Your task to perform on an android device: toggle javascript in the chrome app Image 0: 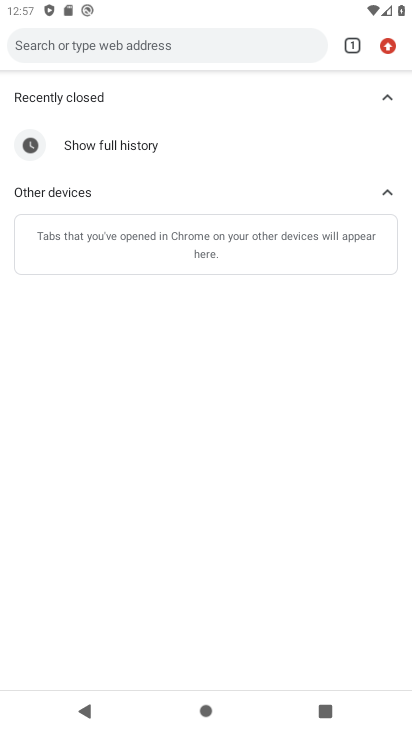
Step 0: press home button
Your task to perform on an android device: toggle javascript in the chrome app Image 1: 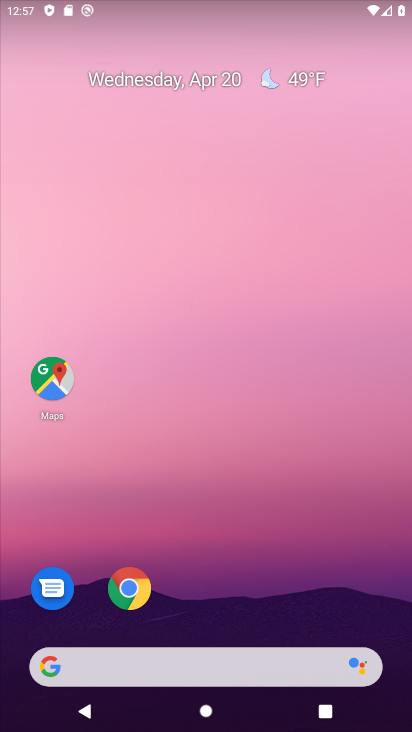
Step 1: drag from (157, 648) to (279, 136)
Your task to perform on an android device: toggle javascript in the chrome app Image 2: 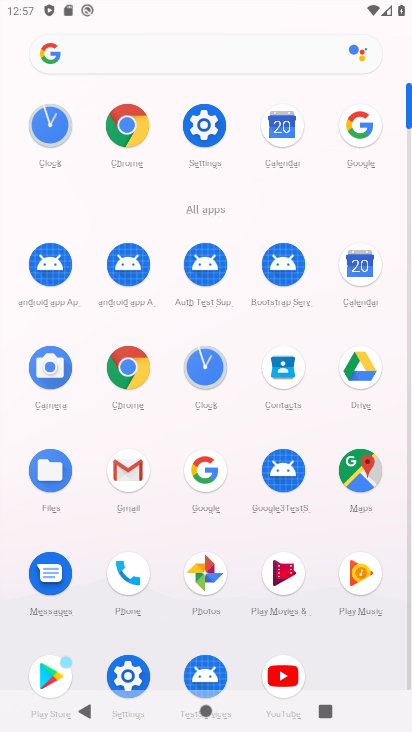
Step 2: click (128, 129)
Your task to perform on an android device: toggle javascript in the chrome app Image 3: 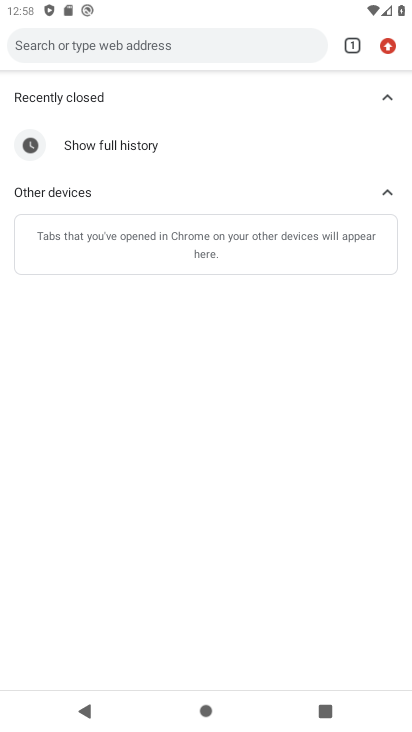
Step 3: click (394, 55)
Your task to perform on an android device: toggle javascript in the chrome app Image 4: 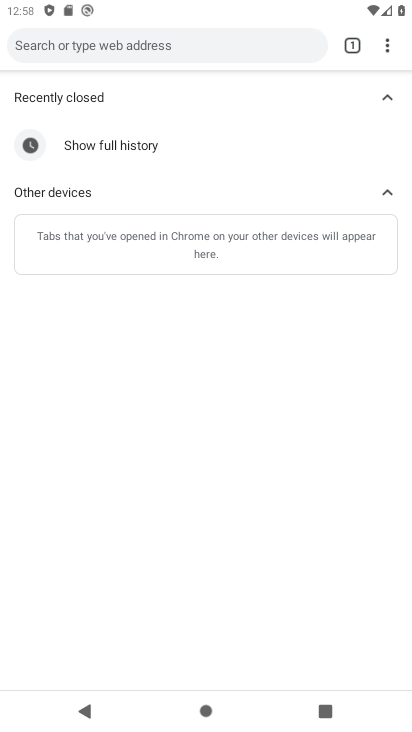
Step 4: click (388, 49)
Your task to perform on an android device: toggle javascript in the chrome app Image 5: 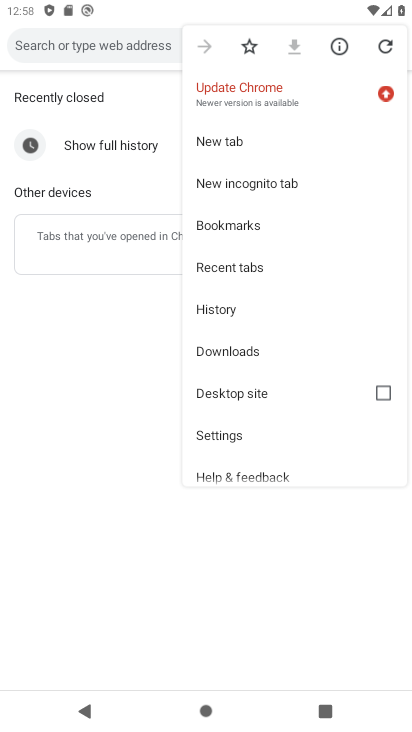
Step 5: click (227, 432)
Your task to perform on an android device: toggle javascript in the chrome app Image 6: 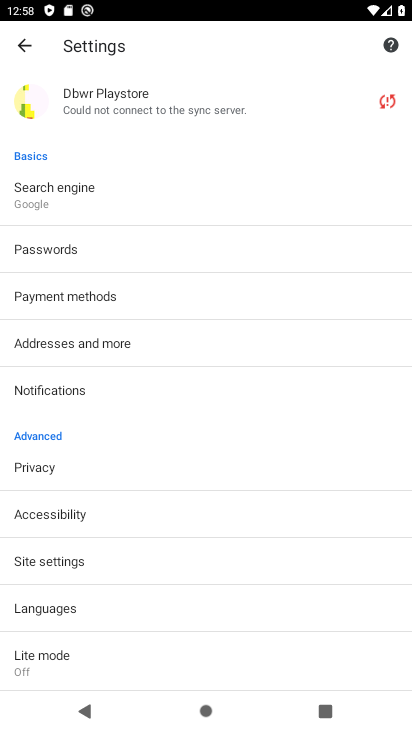
Step 6: click (50, 567)
Your task to perform on an android device: toggle javascript in the chrome app Image 7: 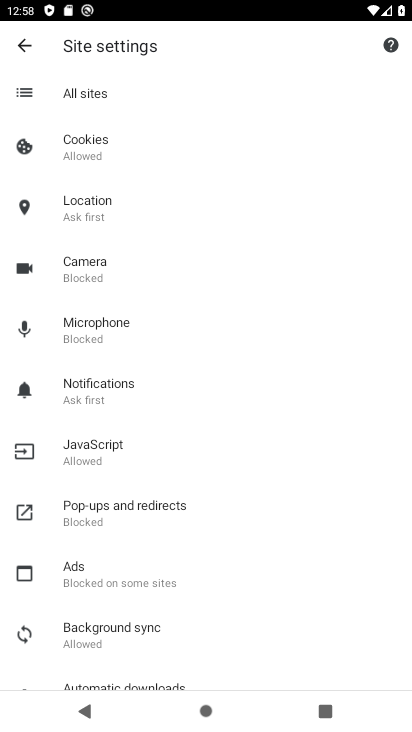
Step 7: click (107, 444)
Your task to perform on an android device: toggle javascript in the chrome app Image 8: 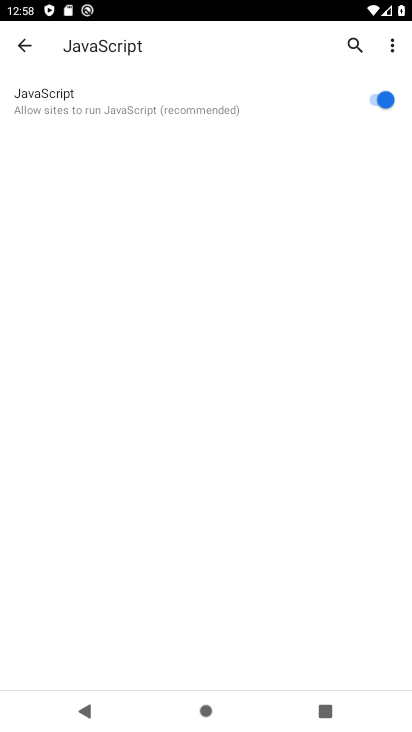
Step 8: click (379, 93)
Your task to perform on an android device: toggle javascript in the chrome app Image 9: 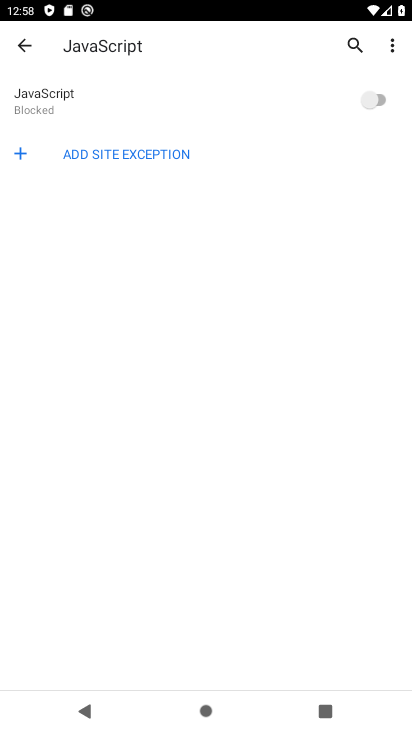
Step 9: task complete